Your task to perform on an android device: Search for bose soundlink mini on costco, select the first entry, add it to the cart, then select checkout. Image 0: 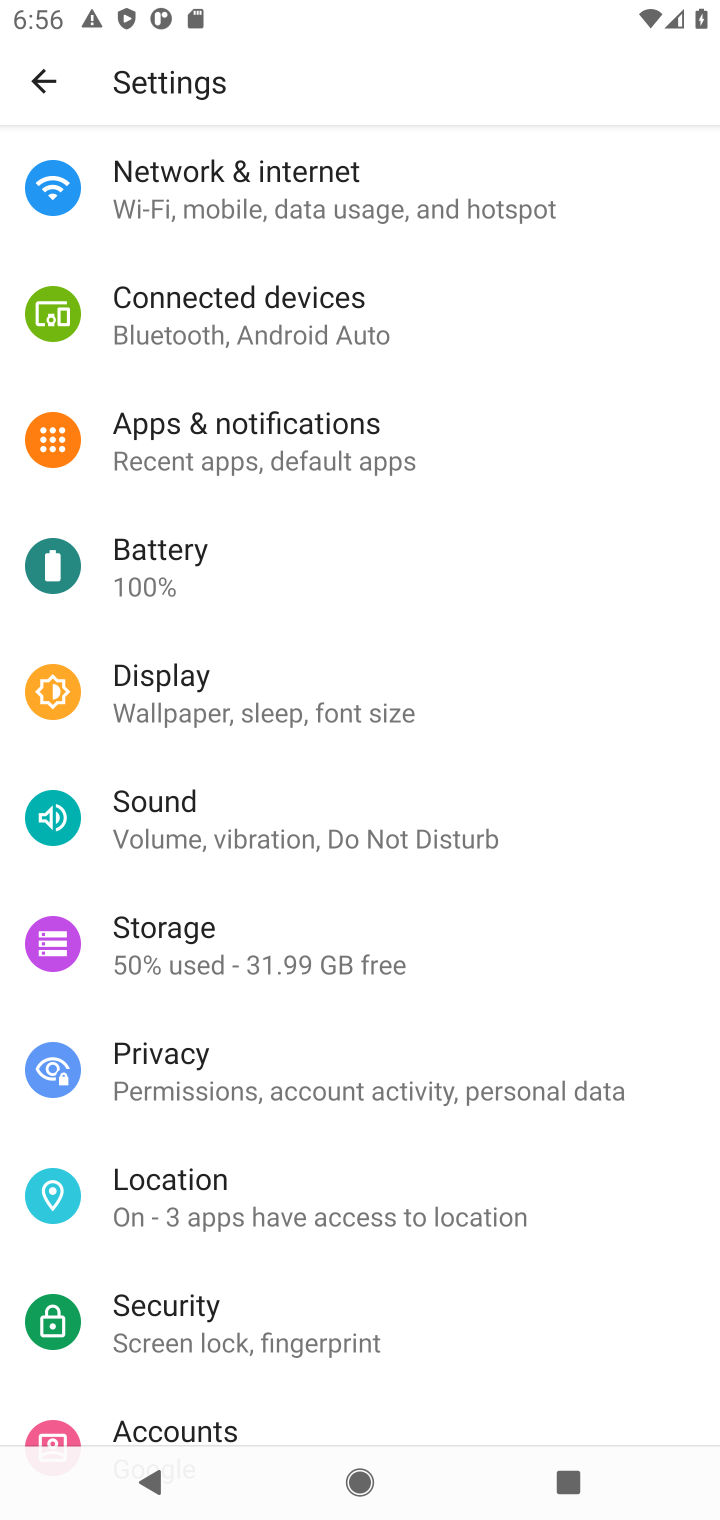
Step 0: press home button
Your task to perform on an android device: Search for bose soundlink mini on costco, select the first entry, add it to the cart, then select checkout. Image 1: 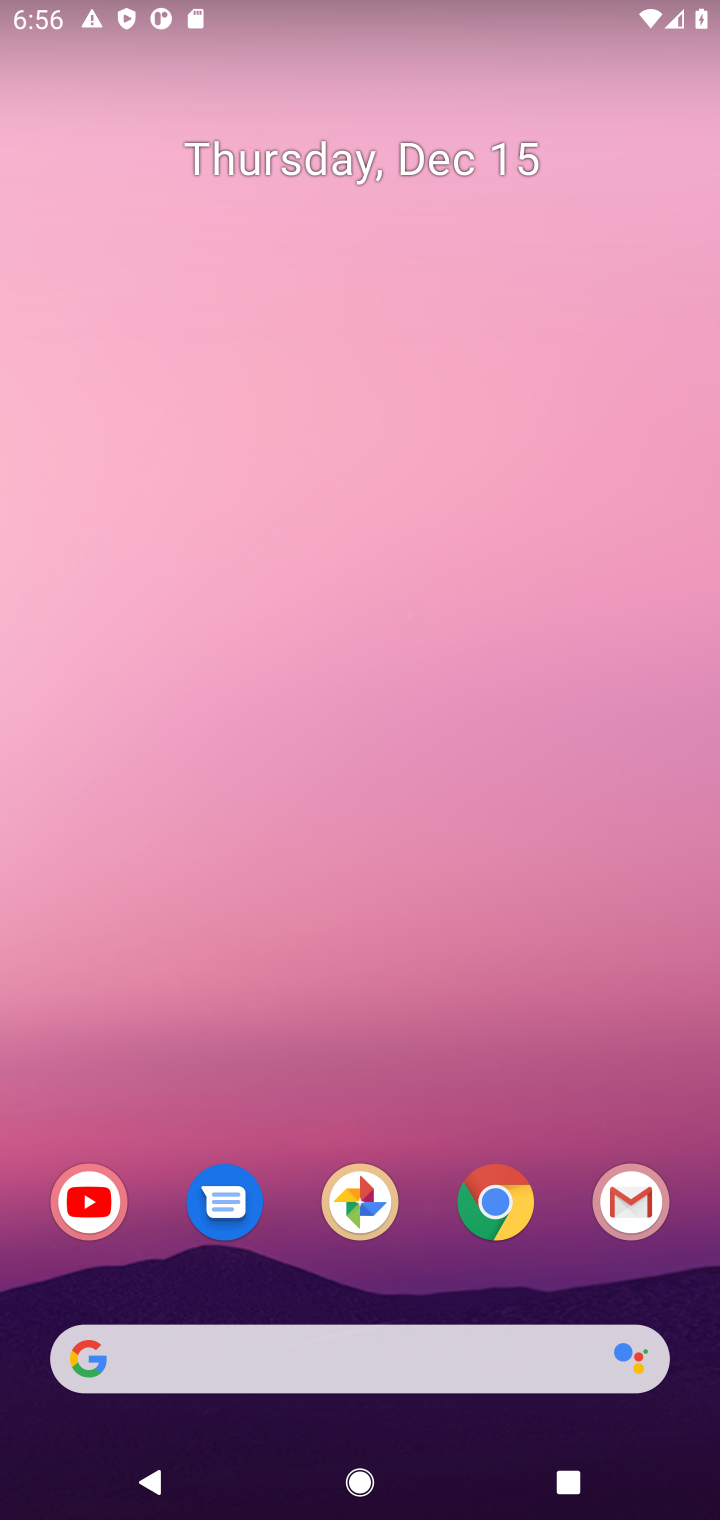
Step 1: click (502, 1206)
Your task to perform on an android device: Search for bose soundlink mini on costco, select the first entry, add it to the cart, then select checkout. Image 2: 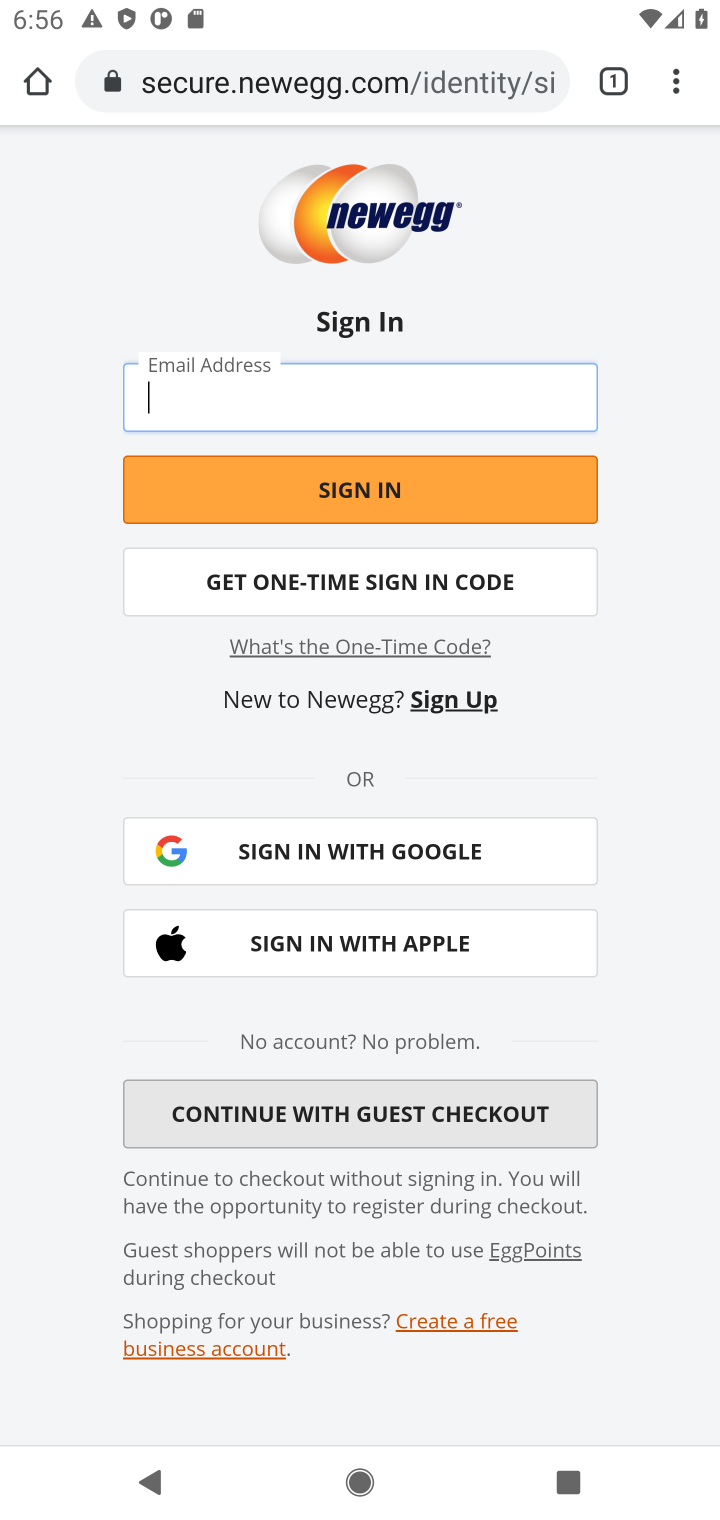
Step 2: click (269, 89)
Your task to perform on an android device: Search for bose soundlink mini on costco, select the first entry, add it to the cart, then select checkout. Image 3: 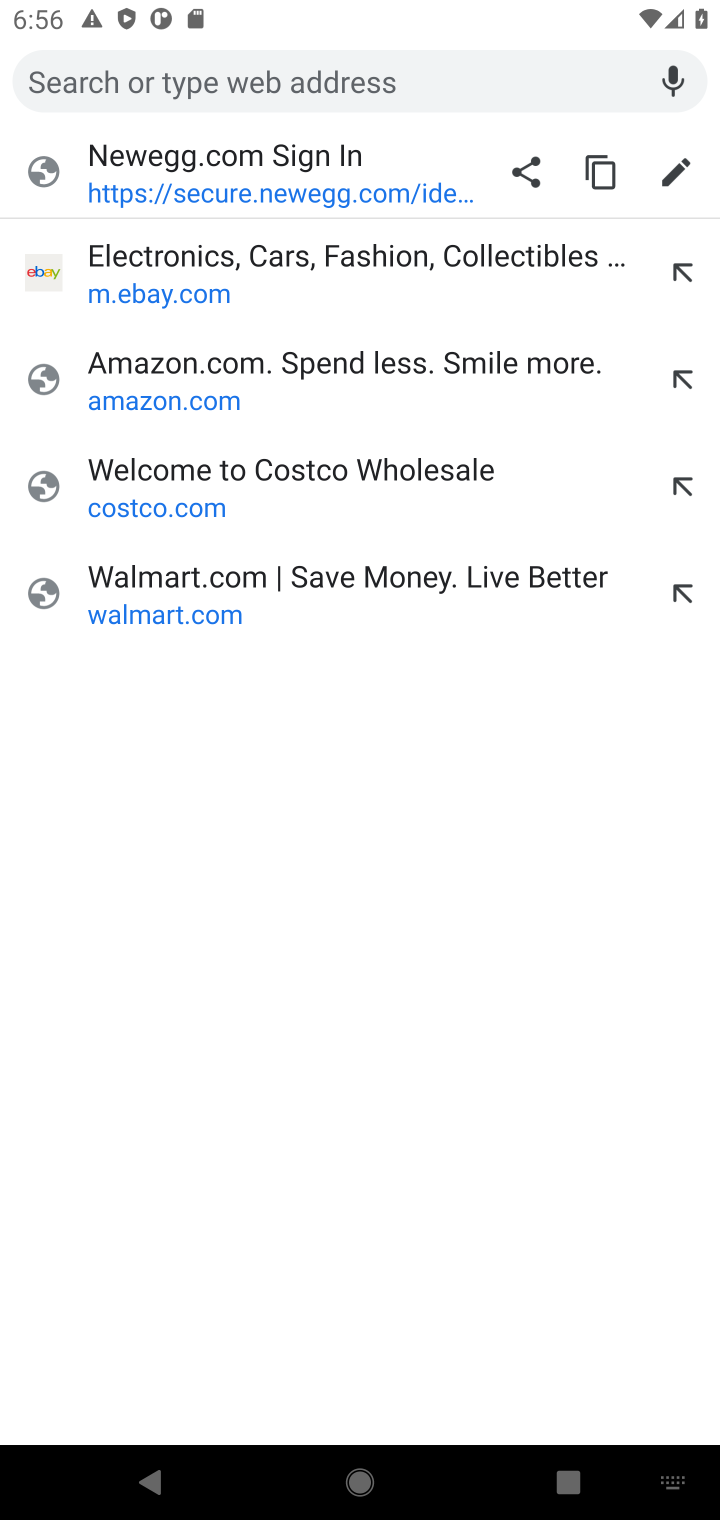
Step 3: click (172, 489)
Your task to perform on an android device: Search for bose soundlink mini on costco, select the first entry, add it to the cart, then select checkout. Image 4: 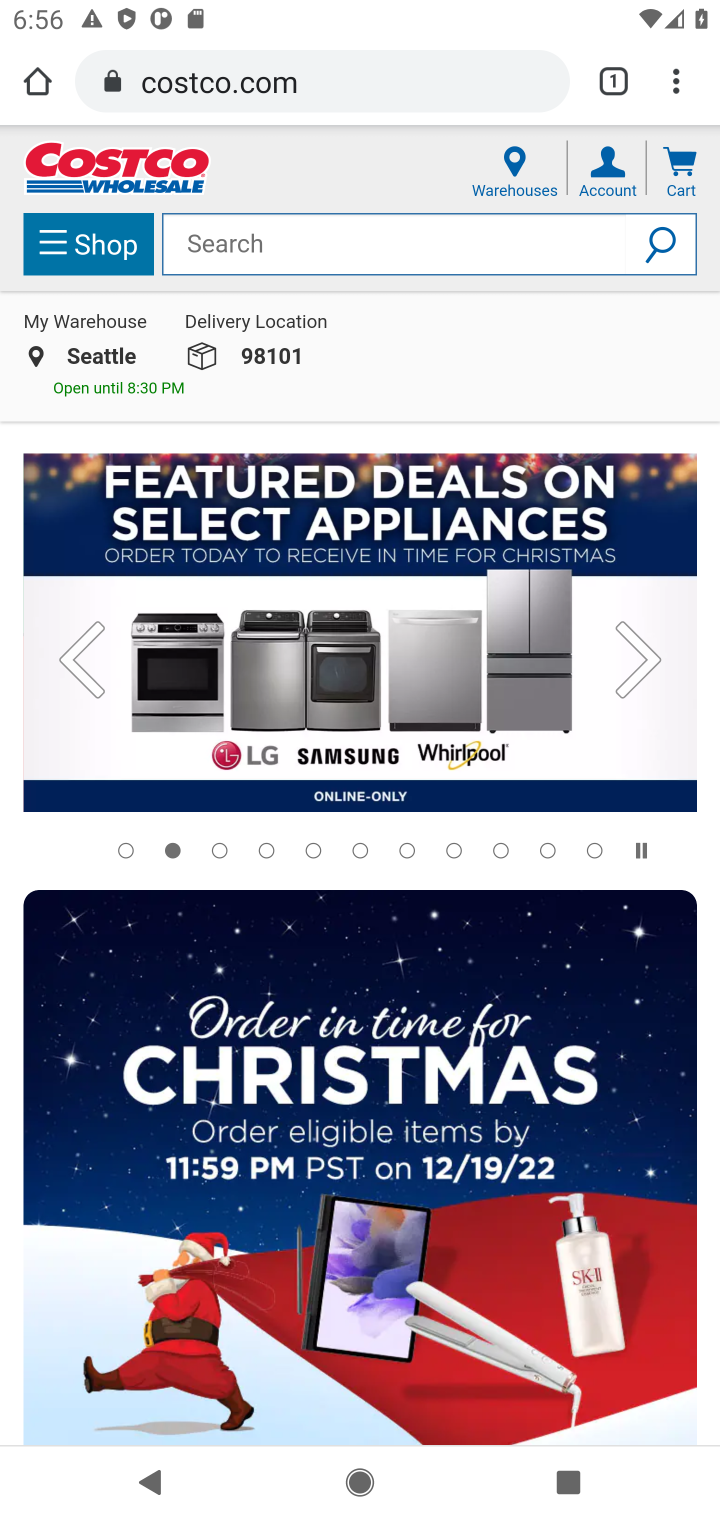
Step 4: click (233, 256)
Your task to perform on an android device: Search for bose soundlink mini on costco, select the first entry, add it to the cart, then select checkout. Image 5: 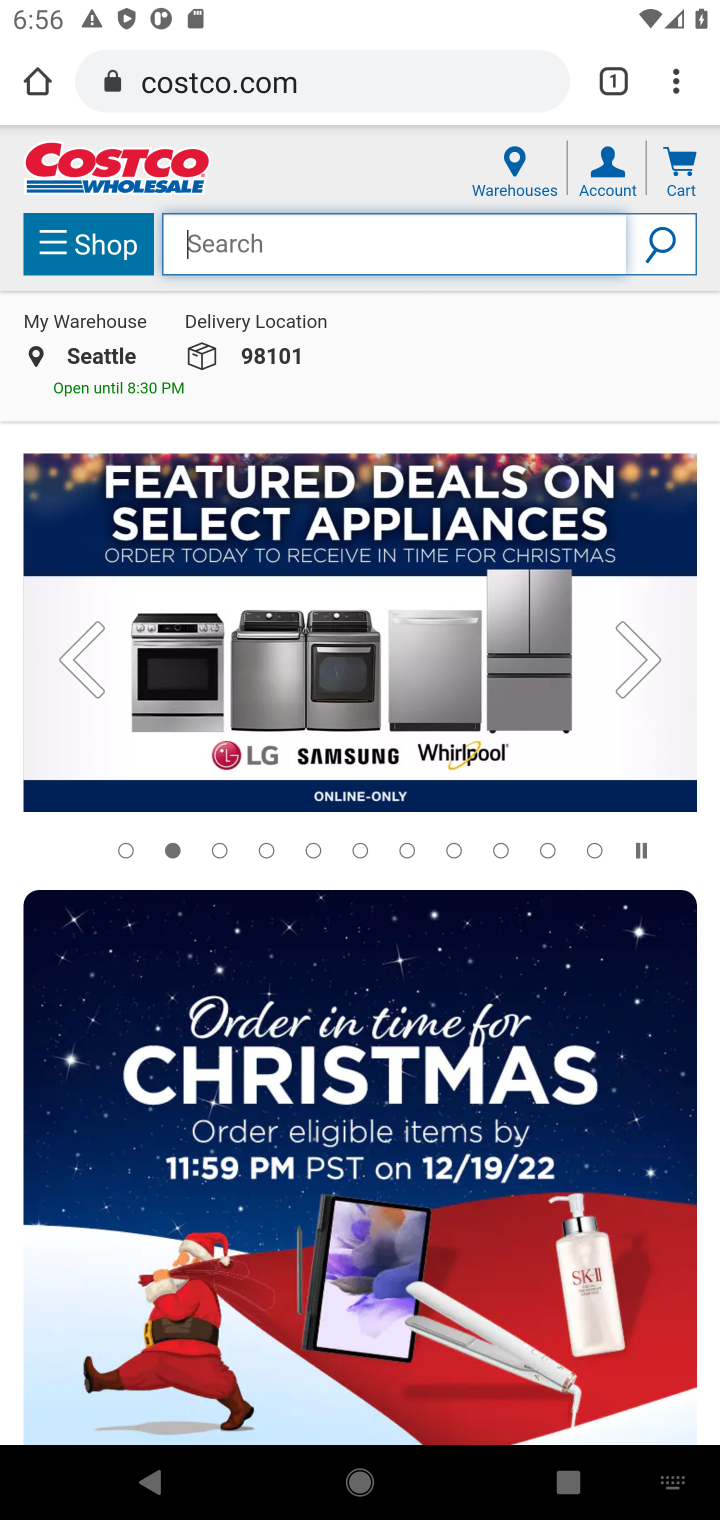
Step 5: type "bose soundlink mini "
Your task to perform on an android device: Search for bose soundlink mini on costco, select the first entry, add it to the cart, then select checkout. Image 6: 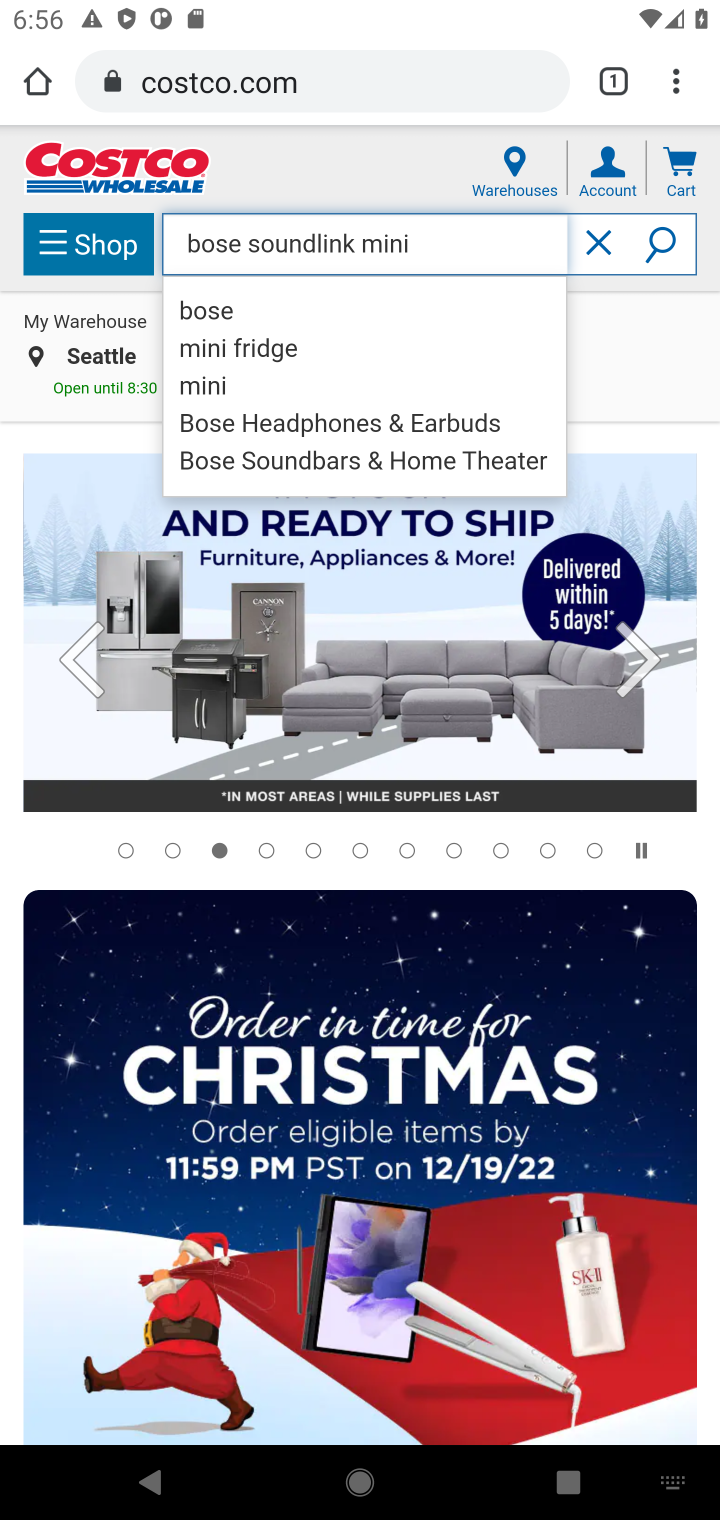
Step 6: click (662, 233)
Your task to perform on an android device: Search for bose soundlink mini on costco, select the first entry, add it to the cart, then select checkout. Image 7: 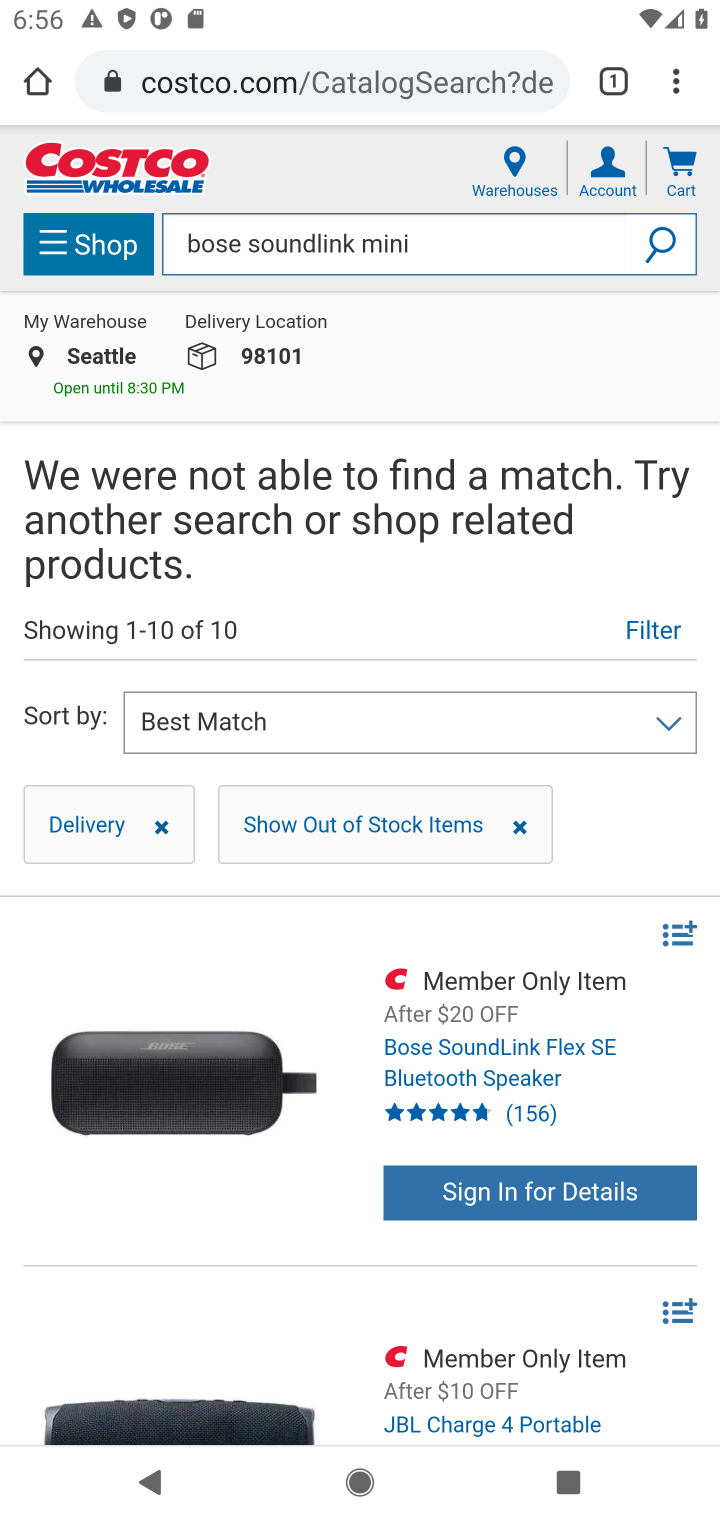
Step 7: task complete